Your task to perform on an android device: Go to ESPN.com Image 0: 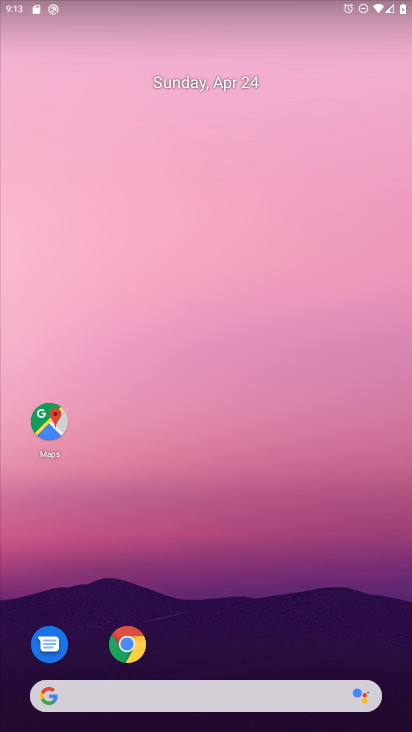
Step 0: drag from (205, 671) to (376, 596)
Your task to perform on an android device: Go to ESPN.com Image 1: 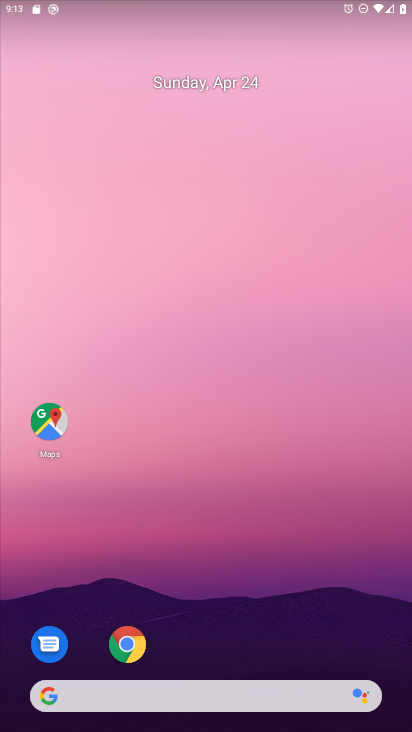
Step 1: drag from (224, 674) to (193, 55)
Your task to perform on an android device: Go to ESPN.com Image 2: 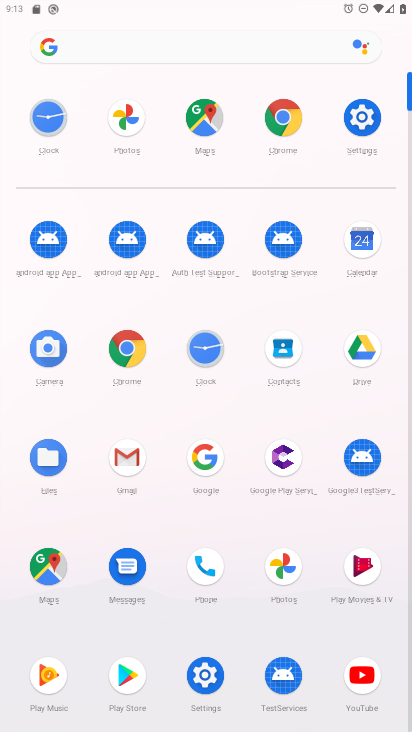
Step 2: click (130, 338)
Your task to perform on an android device: Go to ESPN.com Image 3: 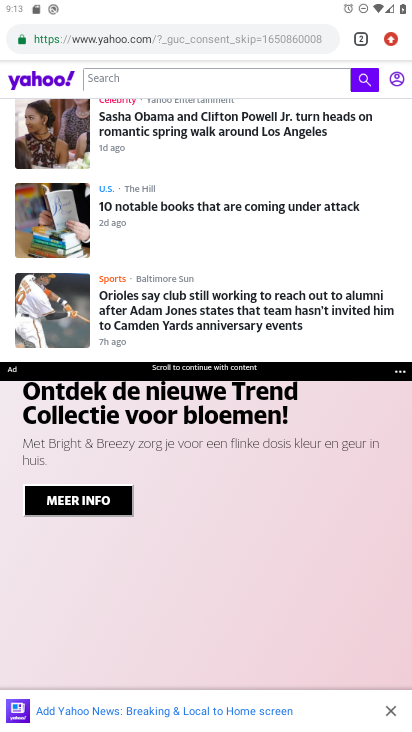
Step 3: click (355, 32)
Your task to perform on an android device: Go to ESPN.com Image 4: 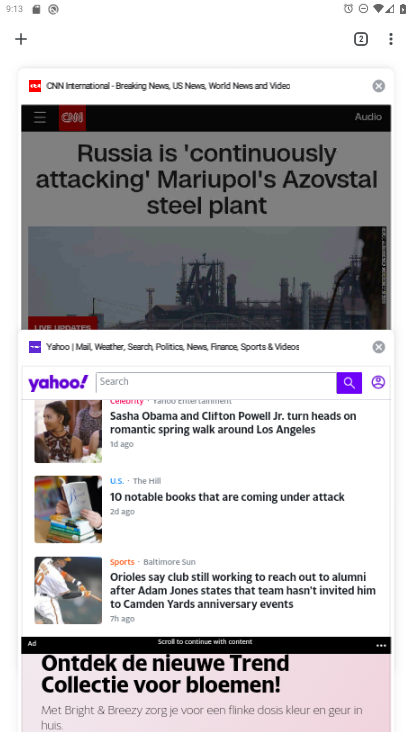
Step 4: click (14, 38)
Your task to perform on an android device: Go to ESPN.com Image 5: 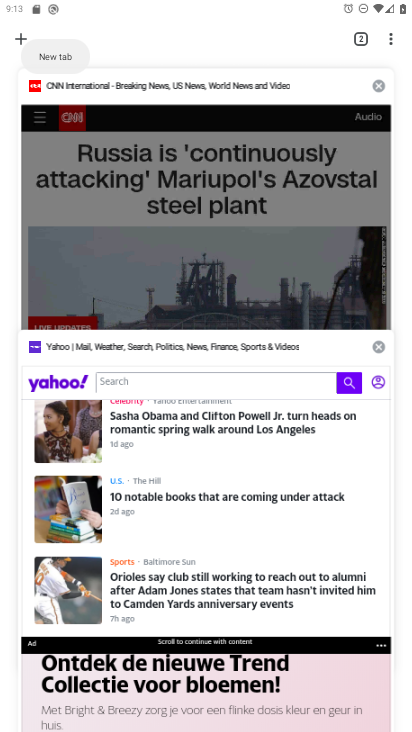
Step 5: click (21, 31)
Your task to perform on an android device: Go to ESPN.com Image 6: 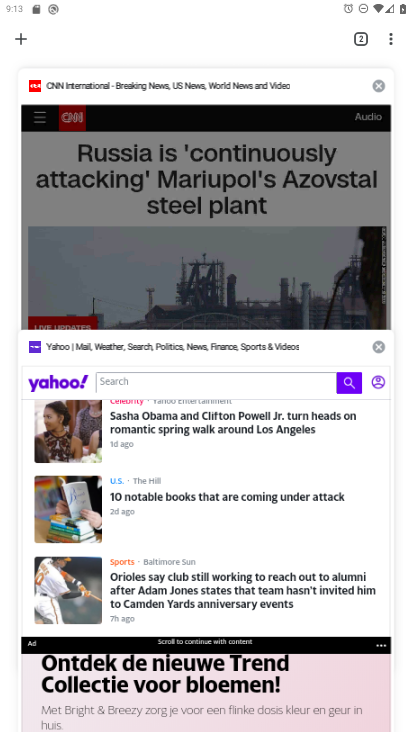
Step 6: click (23, 37)
Your task to perform on an android device: Go to ESPN.com Image 7: 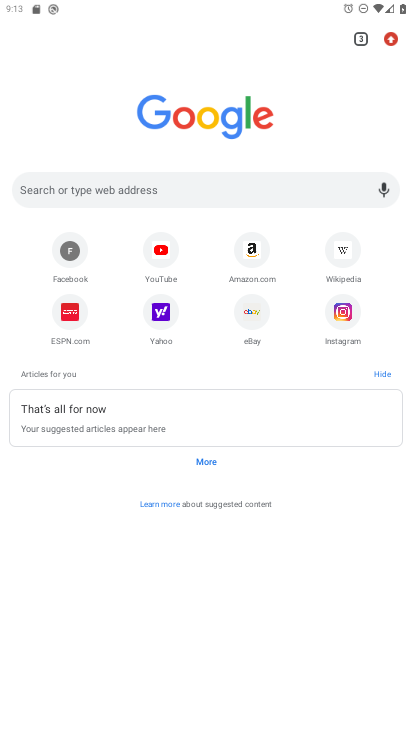
Step 7: click (63, 302)
Your task to perform on an android device: Go to ESPN.com Image 8: 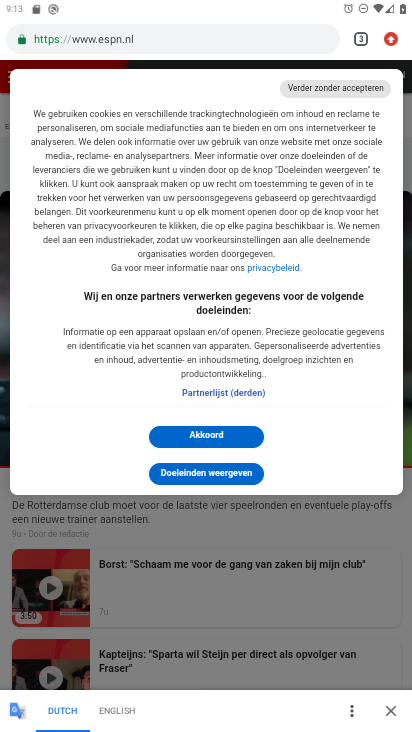
Step 8: task complete